Your task to perform on an android device: Open network settings Image 0: 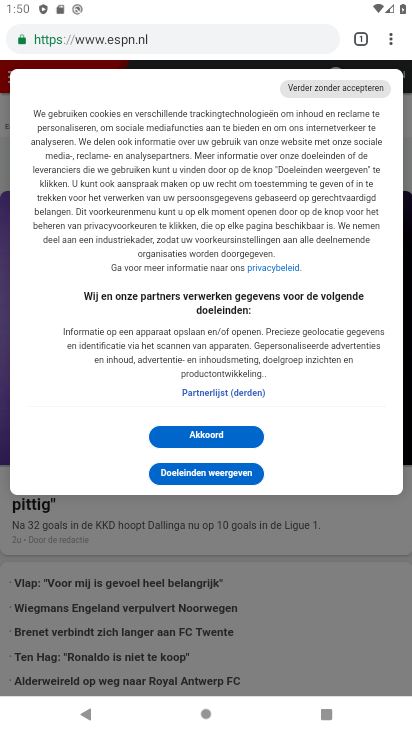
Step 0: press home button
Your task to perform on an android device: Open network settings Image 1: 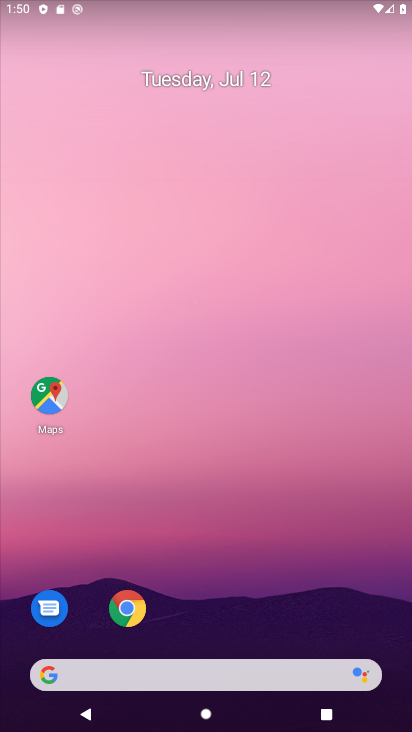
Step 1: drag from (325, 606) to (253, 99)
Your task to perform on an android device: Open network settings Image 2: 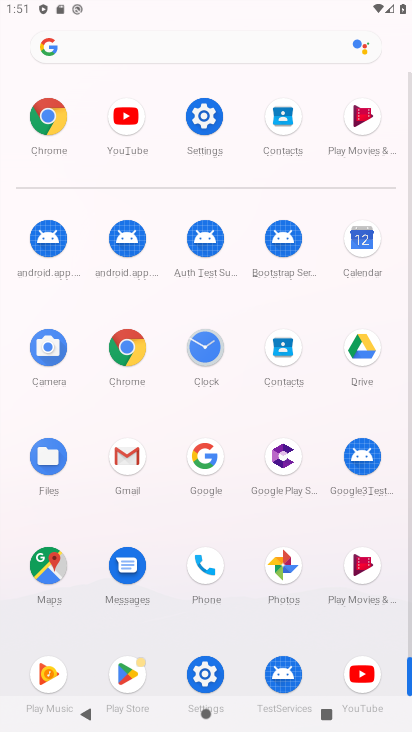
Step 2: click (205, 117)
Your task to perform on an android device: Open network settings Image 3: 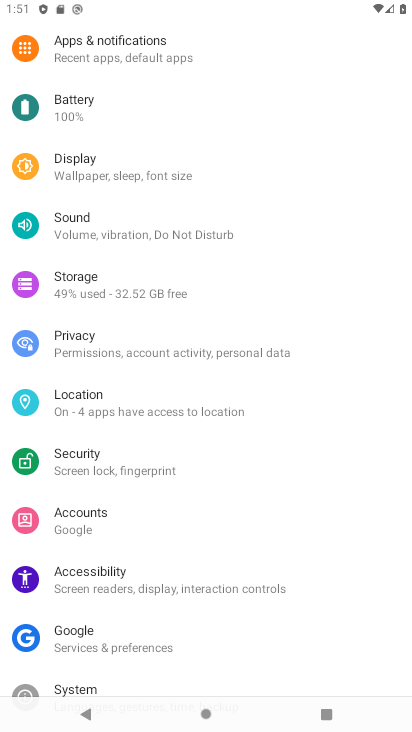
Step 3: drag from (141, 153) to (121, 563)
Your task to perform on an android device: Open network settings Image 4: 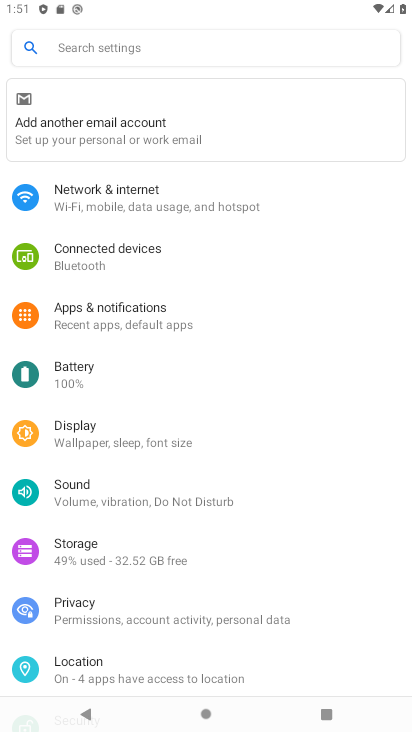
Step 4: click (152, 197)
Your task to perform on an android device: Open network settings Image 5: 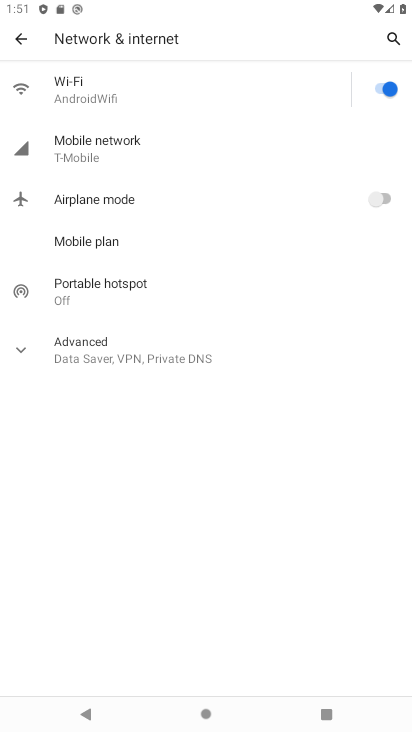
Step 5: task complete